Your task to perform on an android device: check data usage Image 0: 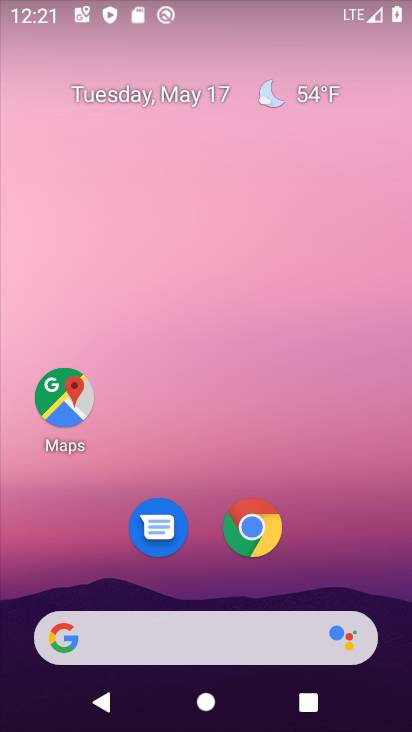
Step 0: drag from (271, 639) to (185, 136)
Your task to perform on an android device: check data usage Image 1: 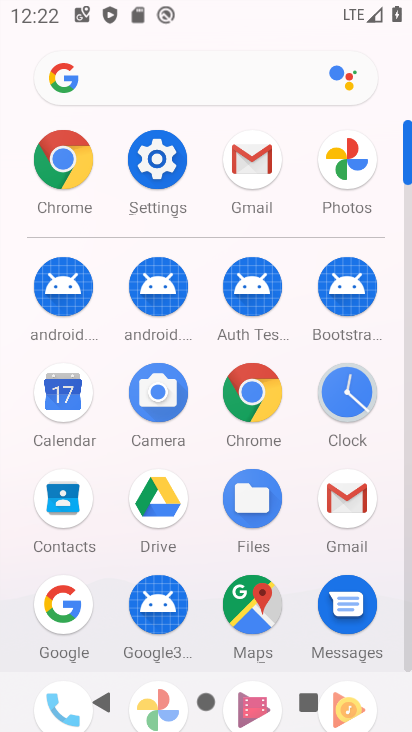
Step 1: click (168, 178)
Your task to perform on an android device: check data usage Image 2: 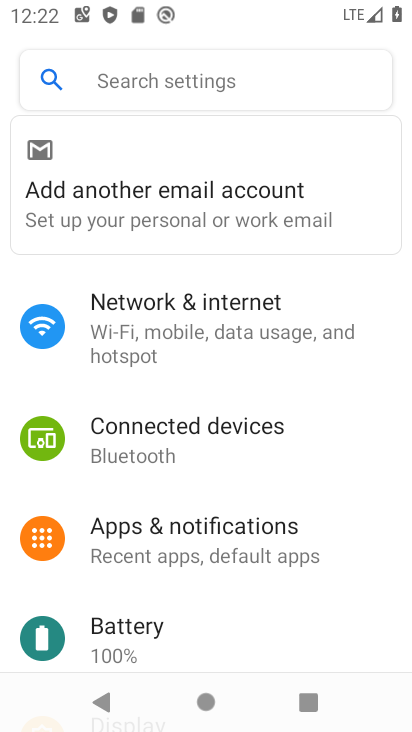
Step 2: click (174, 81)
Your task to perform on an android device: check data usage Image 3: 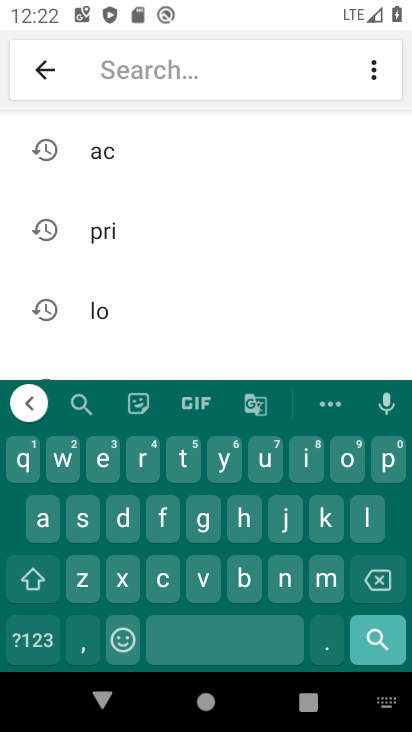
Step 3: click (119, 523)
Your task to perform on an android device: check data usage Image 4: 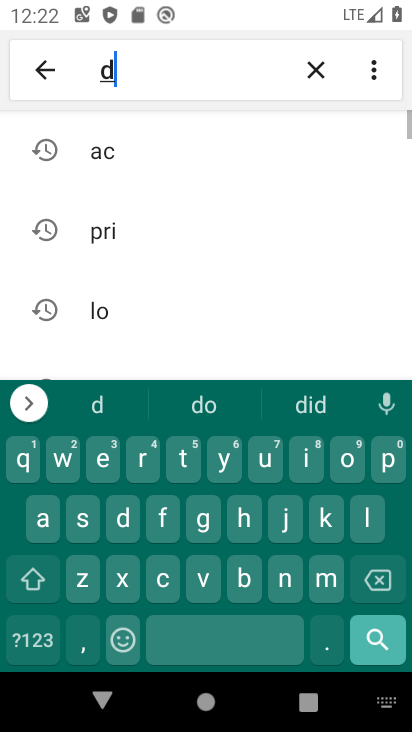
Step 4: click (41, 516)
Your task to perform on an android device: check data usage Image 5: 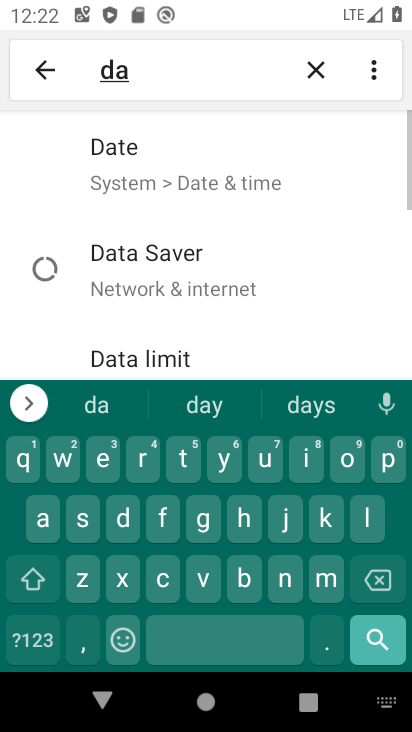
Step 5: click (184, 466)
Your task to perform on an android device: check data usage Image 6: 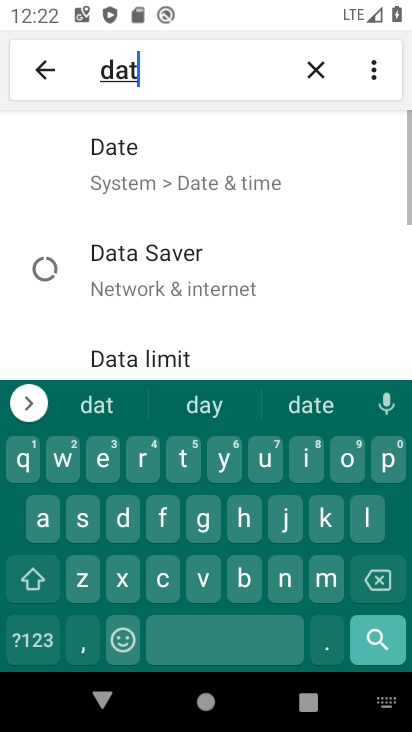
Step 6: click (33, 528)
Your task to perform on an android device: check data usage Image 7: 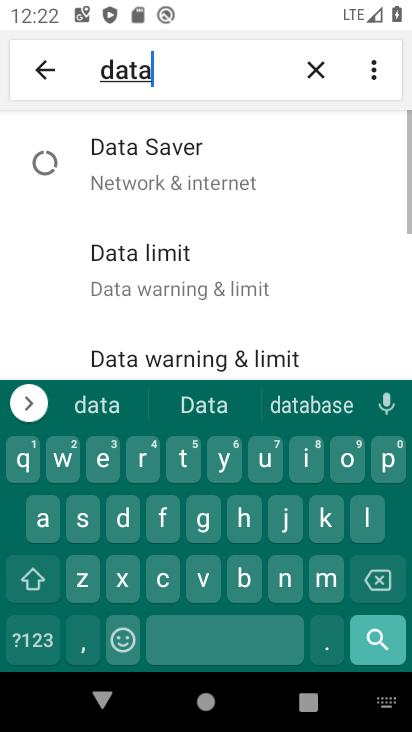
Step 7: click (228, 648)
Your task to perform on an android device: check data usage Image 8: 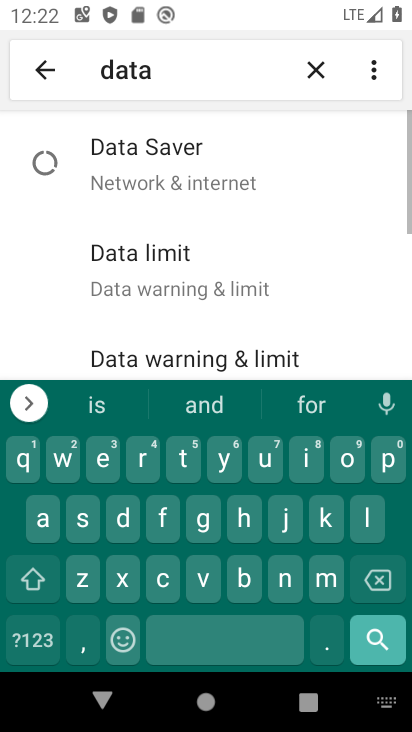
Step 8: click (261, 471)
Your task to perform on an android device: check data usage Image 9: 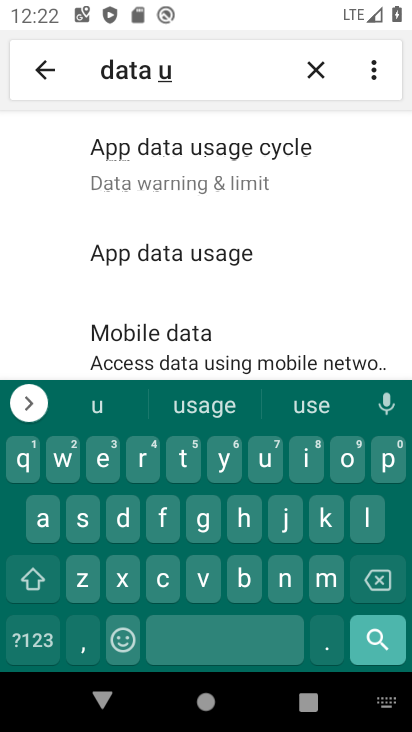
Step 9: click (143, 257)
Your task to perform on an android device: check data usage Image 10: 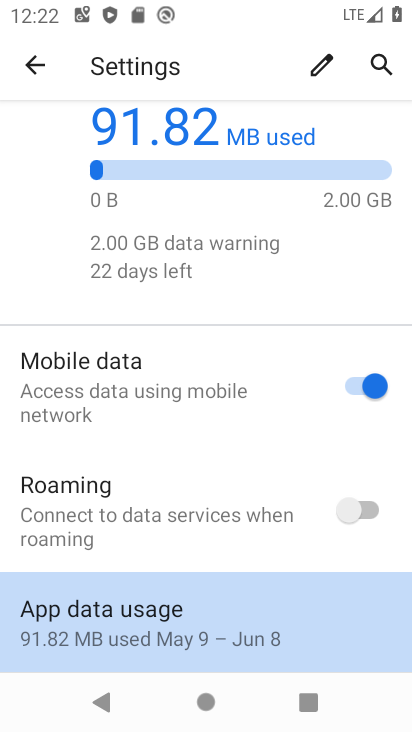
Step 10: click (135, 610)
Your task to perform on an android device: check data usage Image 11: 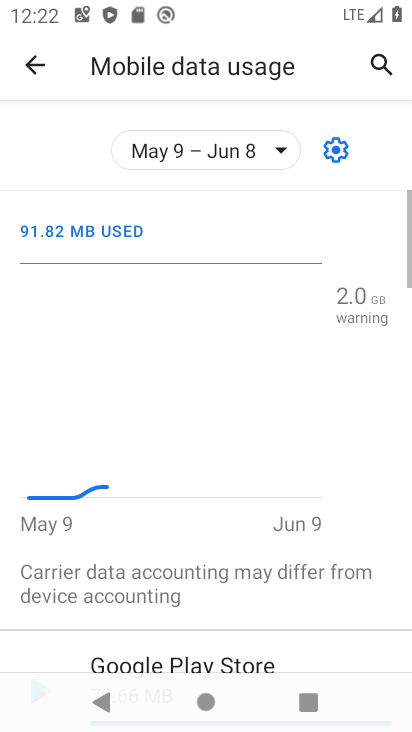
Step 11: task complete